Your task to perform on an android device: open the mobile data screen to see how much data has been used Image 0: 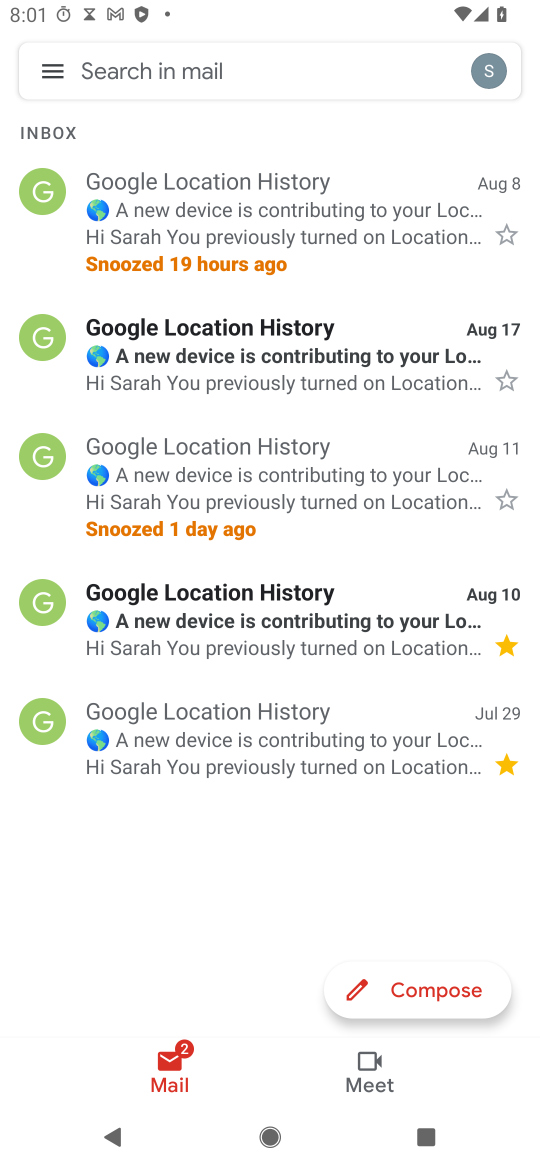
Step 0: press home button
Your task to perform on an android device: open the mobile data screen to see how much data has been used Image 1: 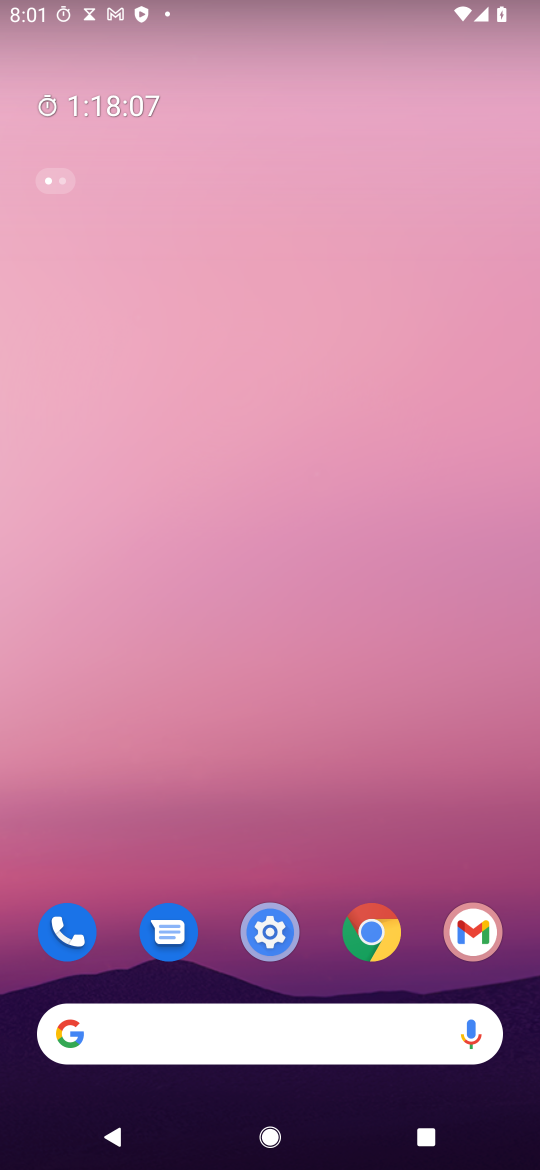
Step 1: drag from (446, 1) to (378, 843)
Your task to perform on an android device: open the mobile data screen to see how much data has been used Image 2: 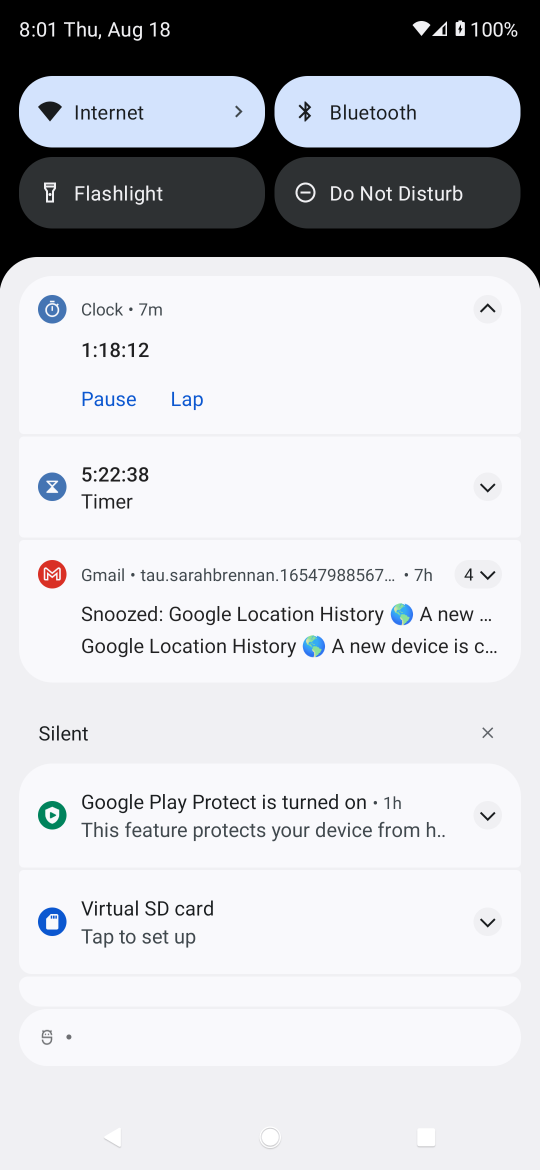
Step 2: click (137, 111)
Your task to perform on an android device: open the mobile data screen to see how much data has been used Image 3: 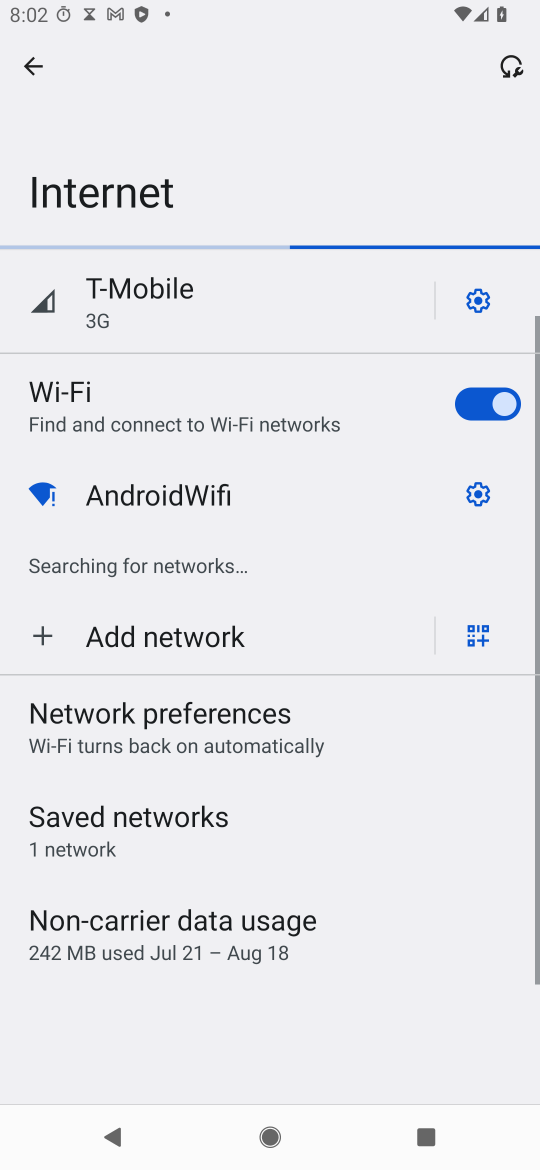
Step 3: task complete